Your task to perform on an android device: Go to Google maps Image 0: 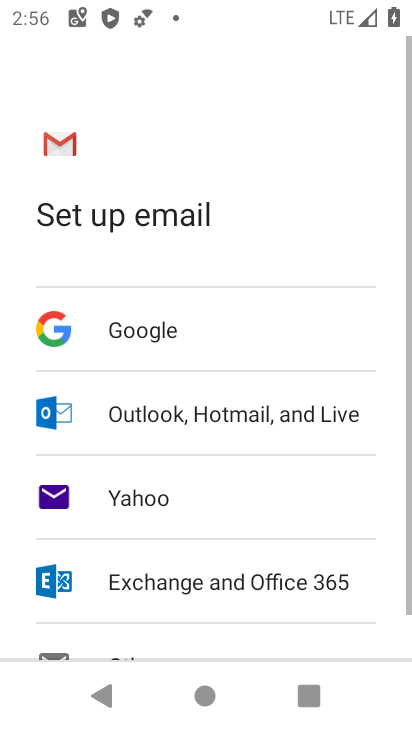
Step 0: press home button
Your task to perform on an android device: Go to Google maps Image 1: 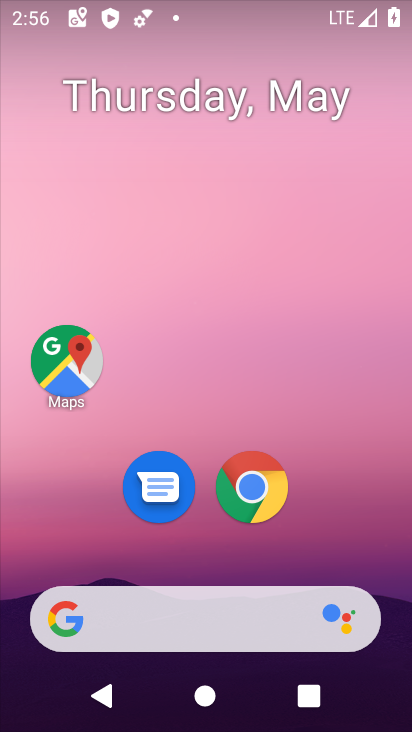
Step 1: drag from (205, 597) to (287, 116)
Your task to perform on an android device: Go to Google maps Image 2: 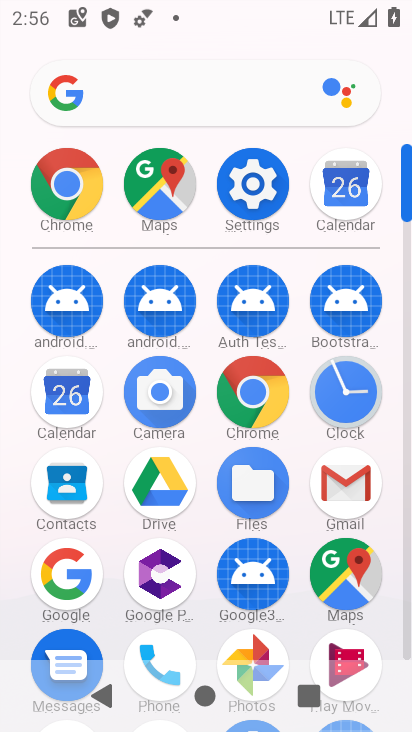
Step 2: click (162, 191)
Your task to perform on an android device: Go to Google maps Image 3: 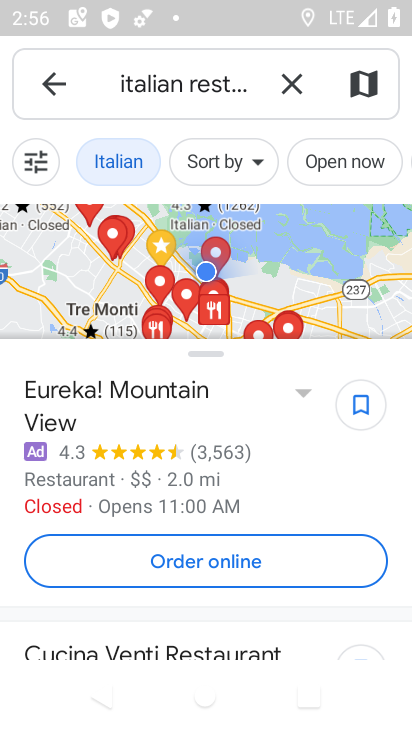
Step 3: task complete